Your task to perform on an android device: change notifications settings Image 0: 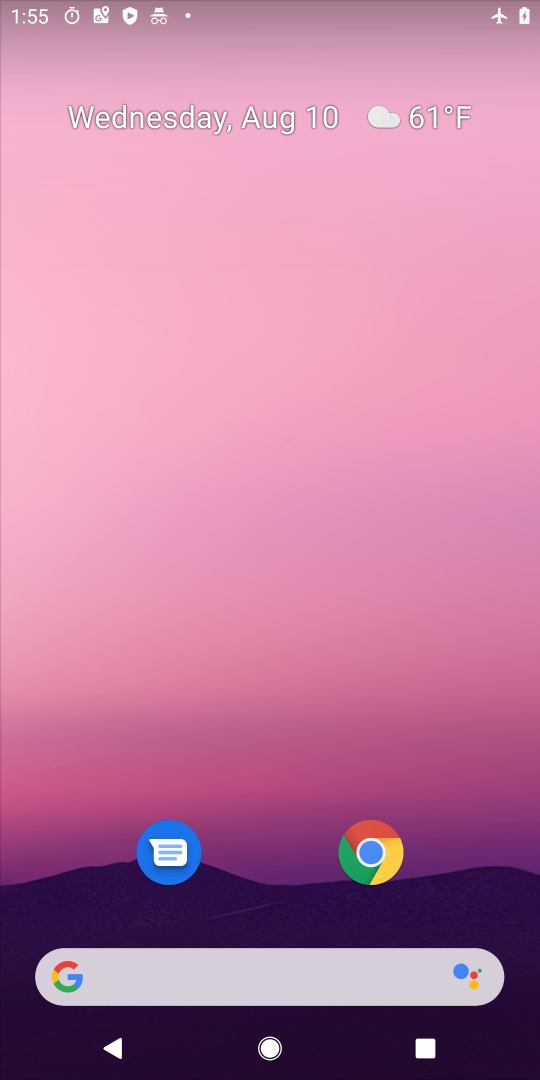
Step 0: drag from (289, 870) to (412, 109)
Your task to perform on an android device: change notifications settings Image 1: 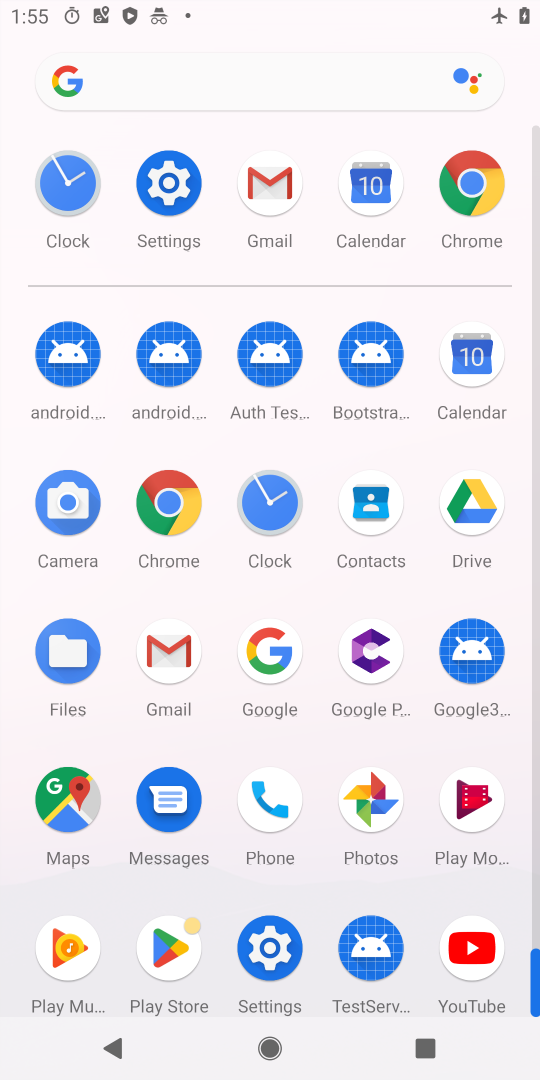
Step 1: click (273, 954)
Your task to perform on an android device: change notifications settings Image 2: 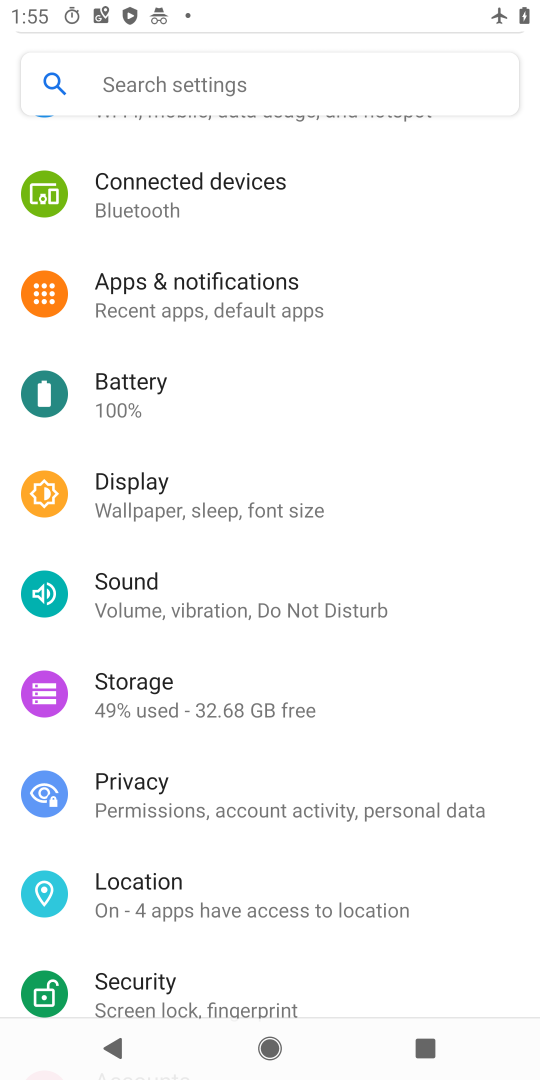
Step 2: click (215, 280)
Your task to perform on an android device: change notifications settings Image 3: 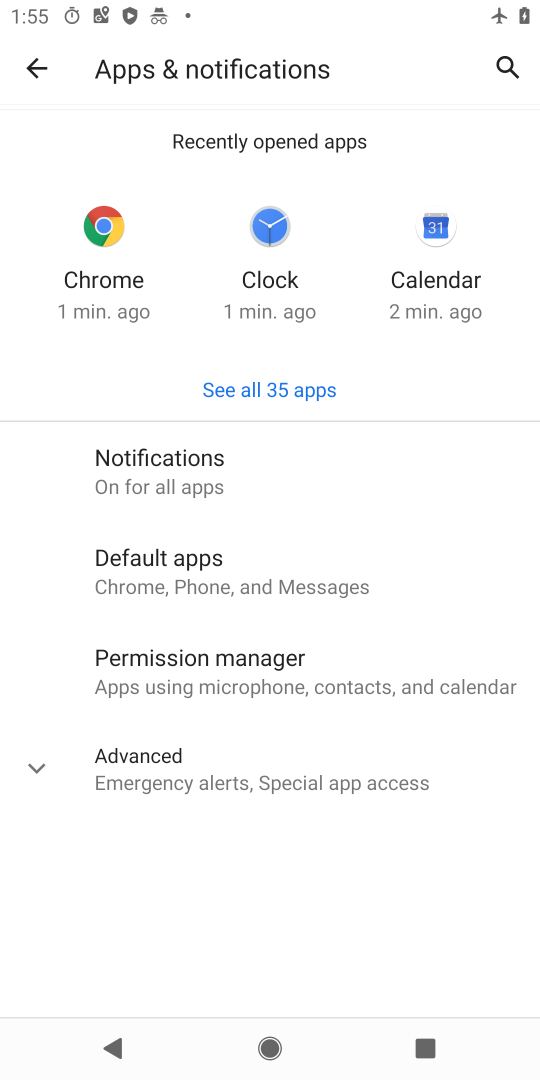
Step 3: click (153, 491)
Your task to perform on an android device: change notifications settings Image 4: 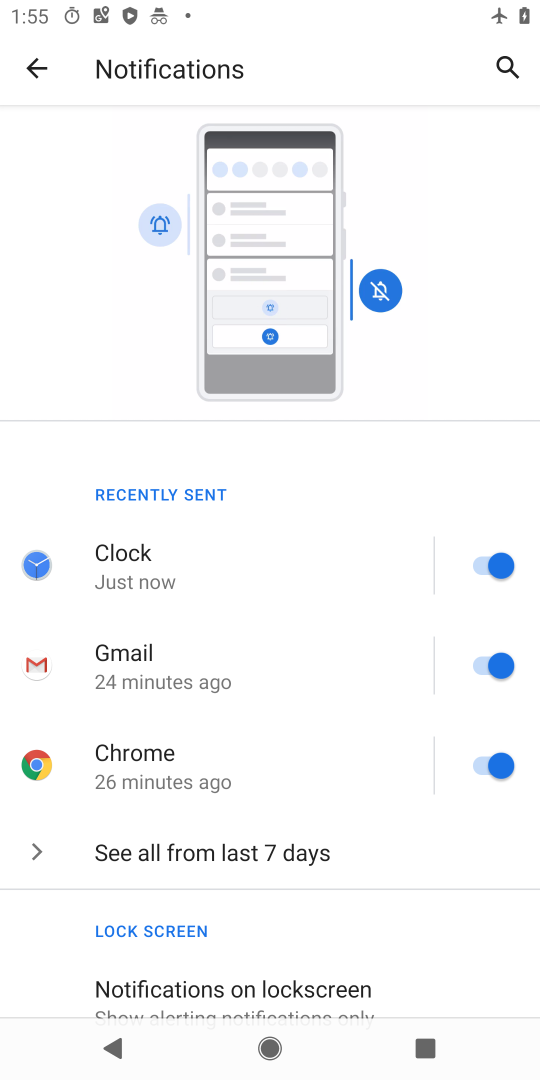
Step 4: task complete